Your task to perform on an android device: What's on my calendar tomorrow? Image 0: 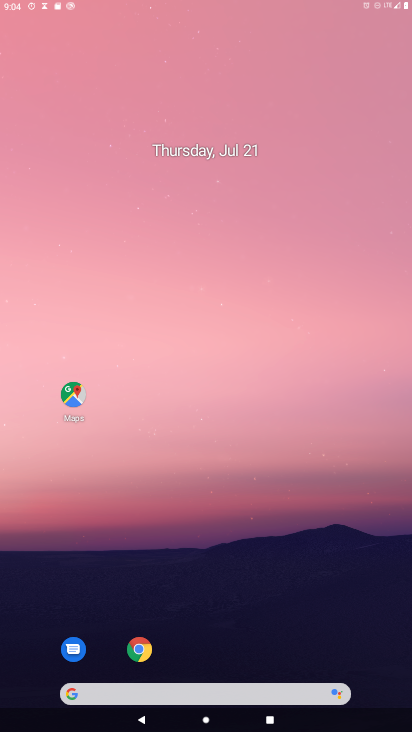
Step 0: drag from (369, 648) to (194, 47)
Your task to perform on an android device: What's on my calendar tomorrow? Image 1: 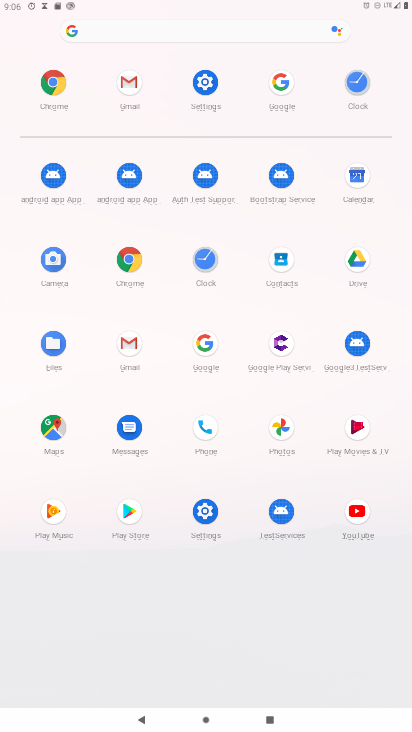
Step 1: click (352, 184)
Your task to perform on an android device: What's on my calendar tomorrow? Image 2: 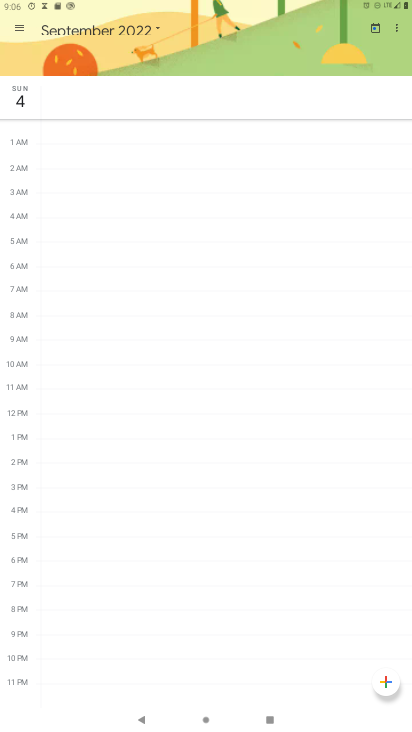
Step 2: task complete